Your task to perform on an android device: Turn on the flashlight Image 0: 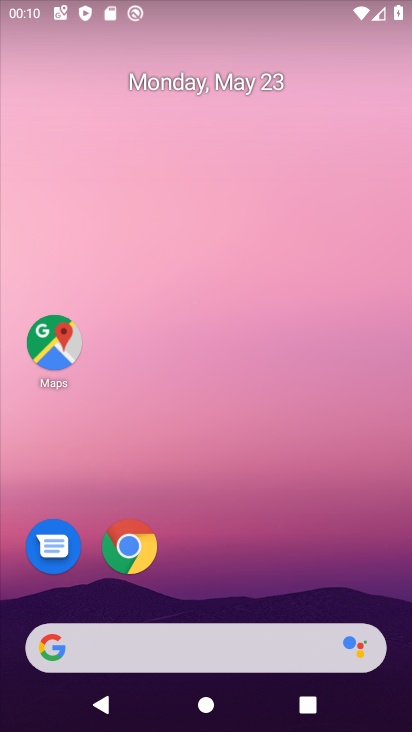
Step 0: drag from (175, 434) to (195, 66)
Your task to perform on an android device: Turn on the flashlight Image 1: 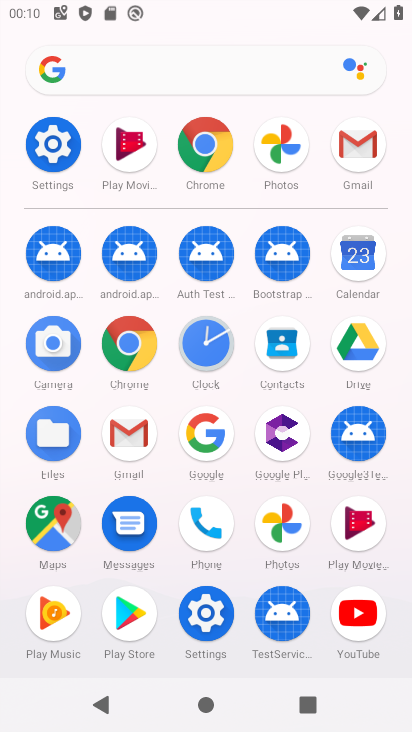
Step 1: click (52, 144)
Your task to perform on an android device: Turn on the flashlight Image 2: 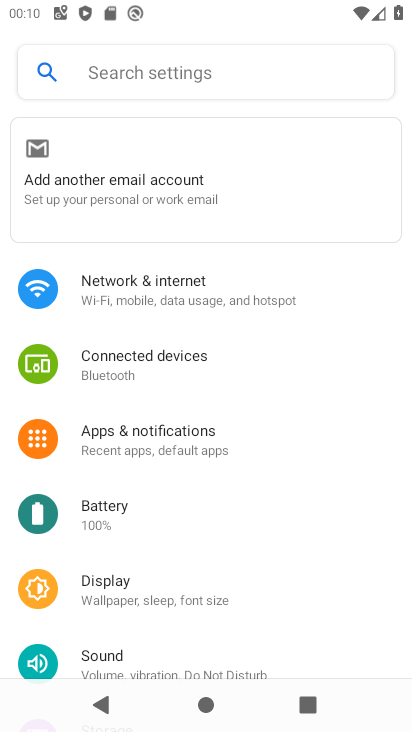
Step 2: click (166, 72)
Your task to perform on an android device: Turn on the flashlight Image 3: 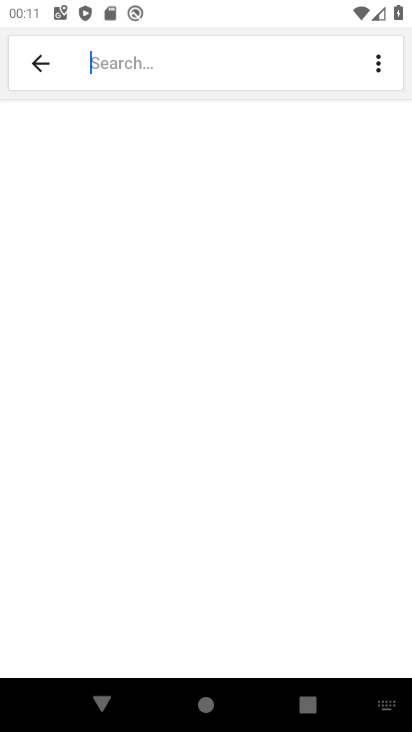
Step 3: type "flashlight"
Your task to perform on an android device: Turn on the flashlight Image 4: 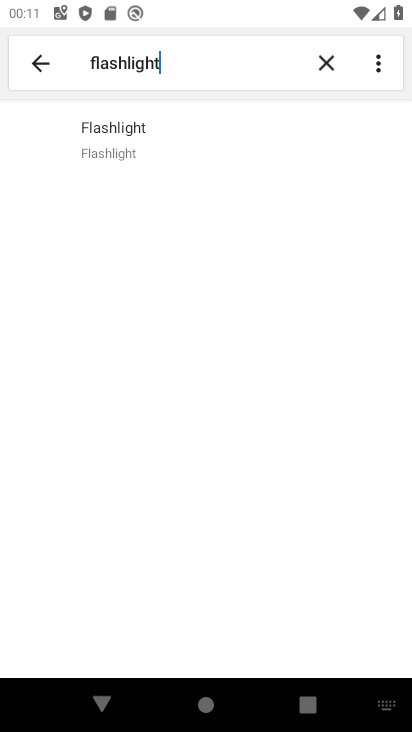
Step 4: click (180, 139)
Your task to perform on an android device: Turn on the flashlight Image 5: 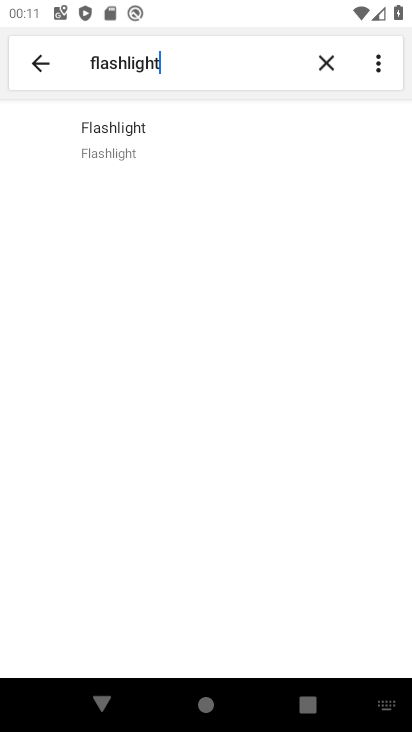
Step 5: task complete